Your task to perform on an android device: Search for razer huntsman on amazon, select the first entry, add it to the cart, then select checkout. Image 0: 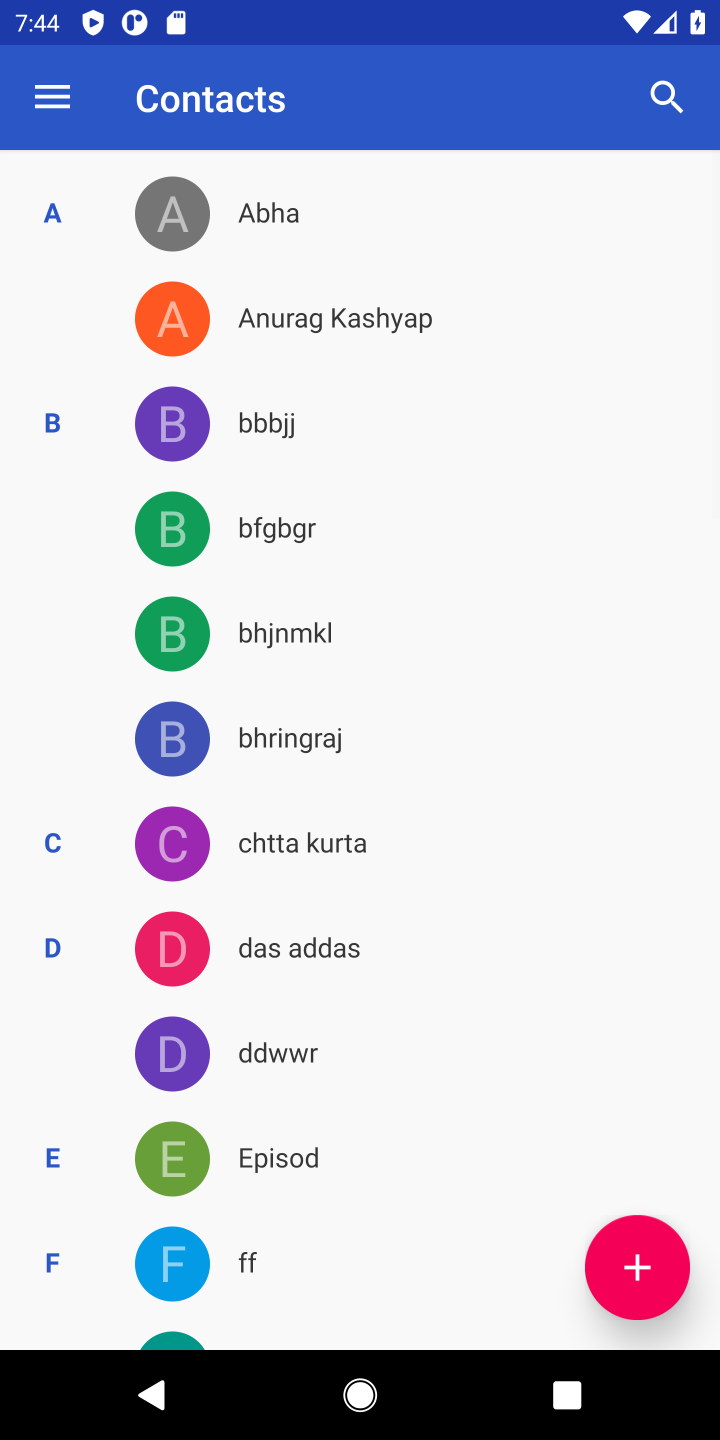
Step 0: press home button
Your task to perform on an android device: Search for razer huntsman on amazon, select the first entry, add it to the cart, then select checkout. Image 1: 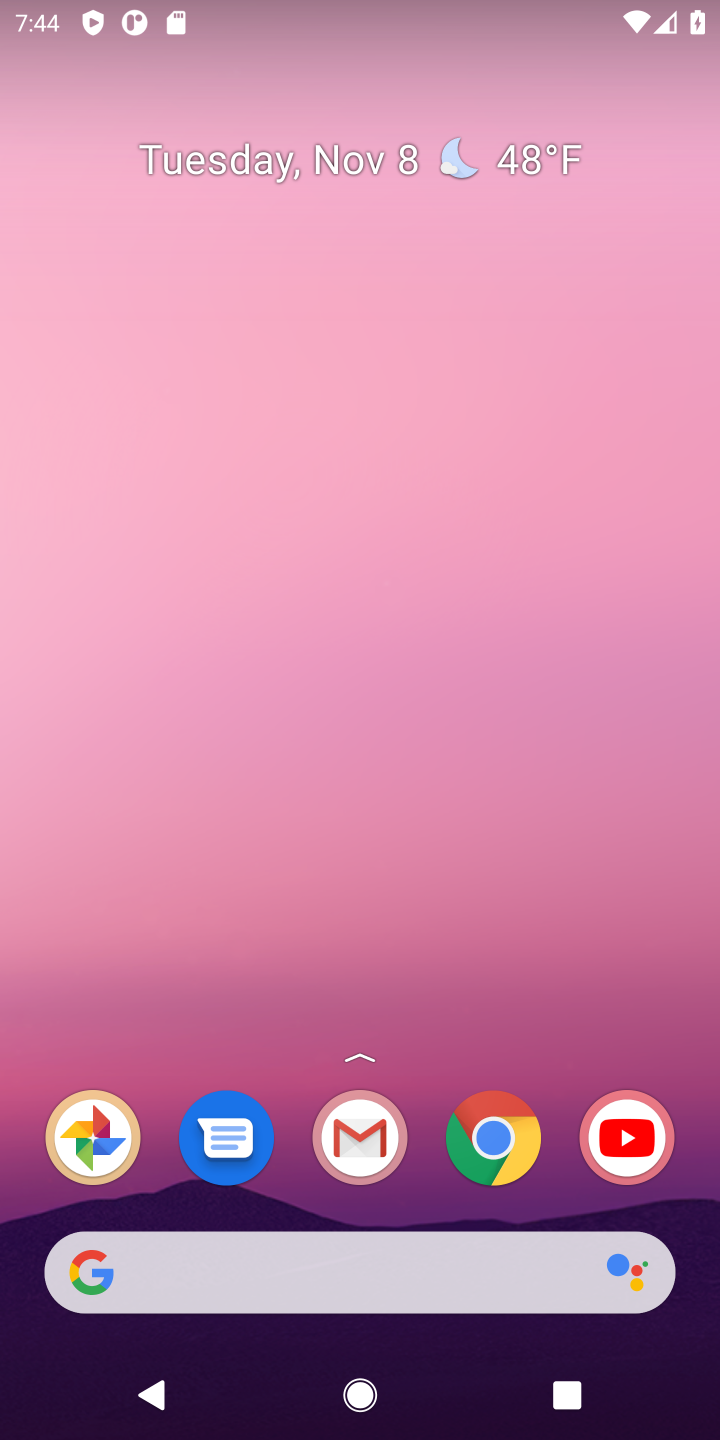
Step 1: click (488, 1132)
Your task to perform on an android device: Search for razer huntsman on amazon, select the first entry, add it to the cart, then select checkout. Image 2: 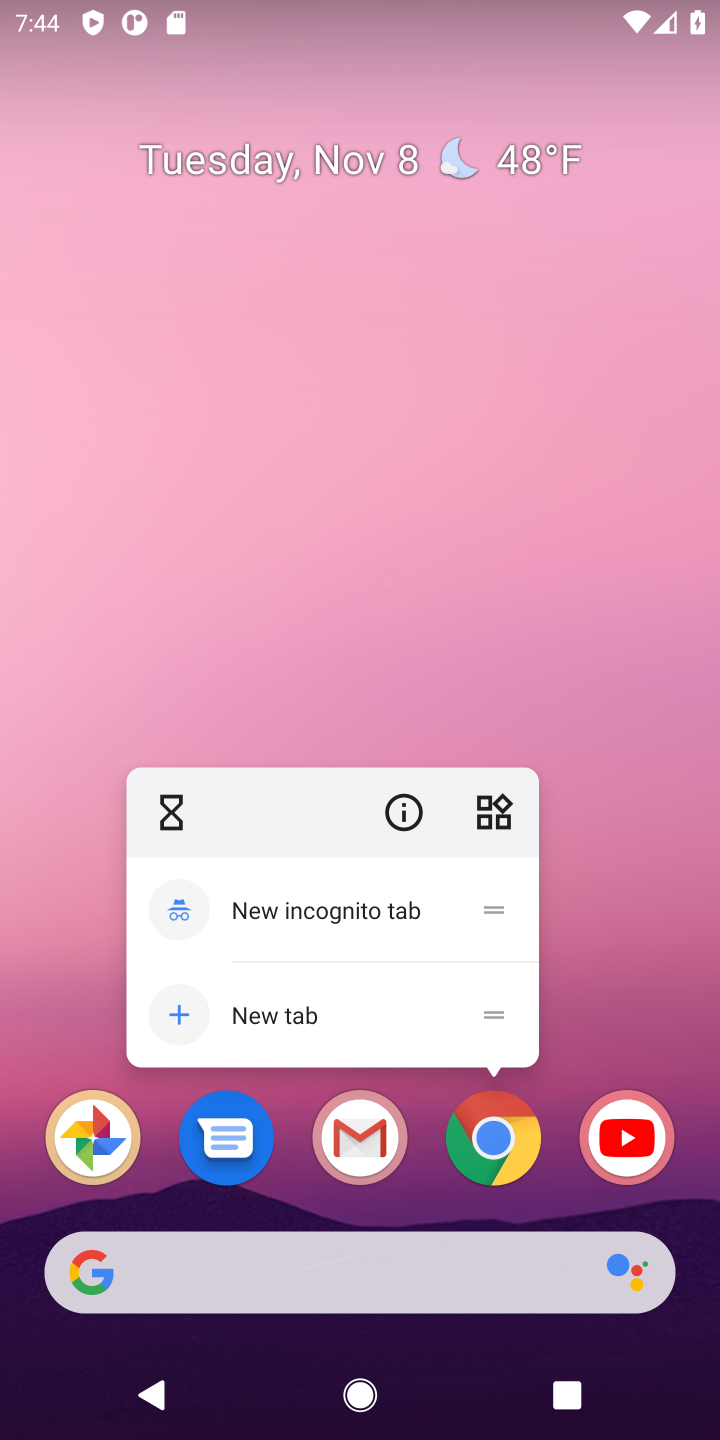
Step 2: click (507, 1122)
Your task to perform on an android device: Search for razer huntsman on amazon, select the first entry, add it to the cart, then select checkout. Image 3: 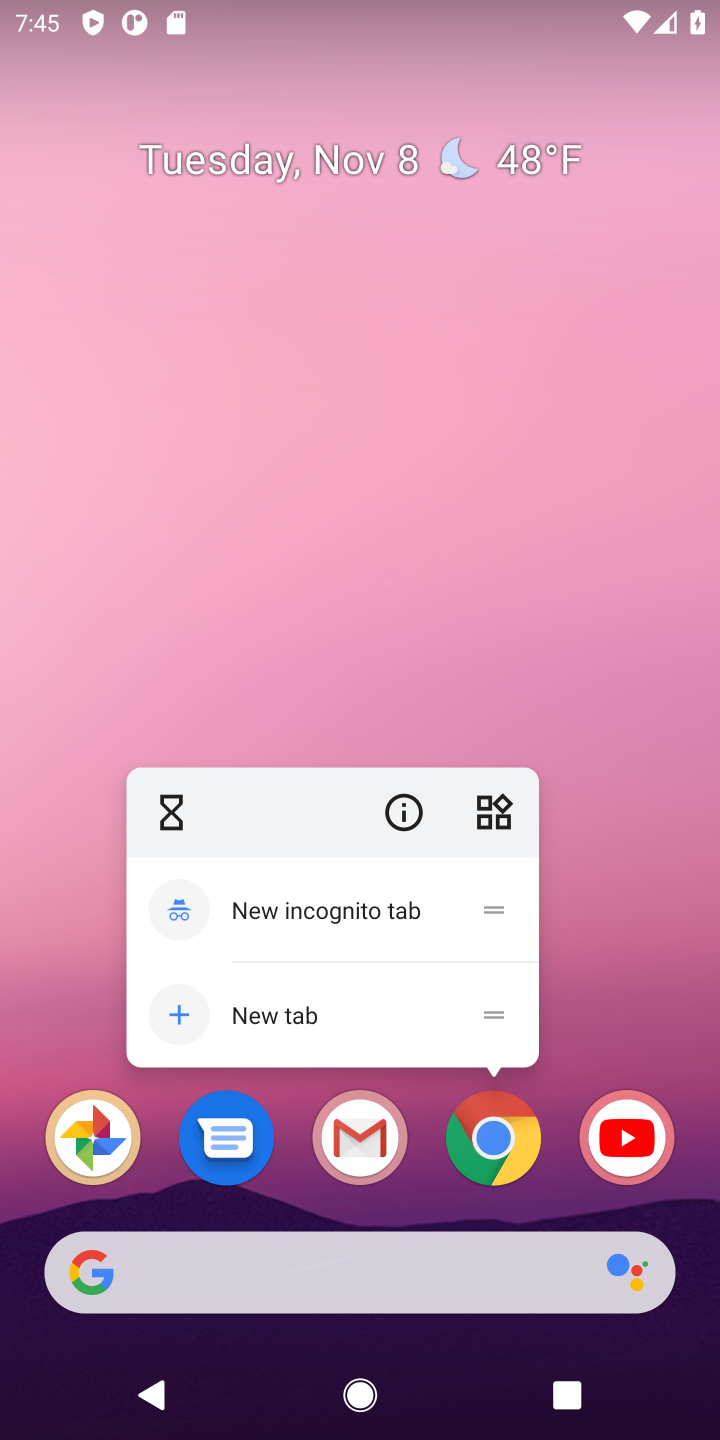
Step 3: click (507, 1128)
Your task to perform on an android device: Search for razer huntsman on amazon, select the first entry, add it to the cart, then select checkout. Image 4: 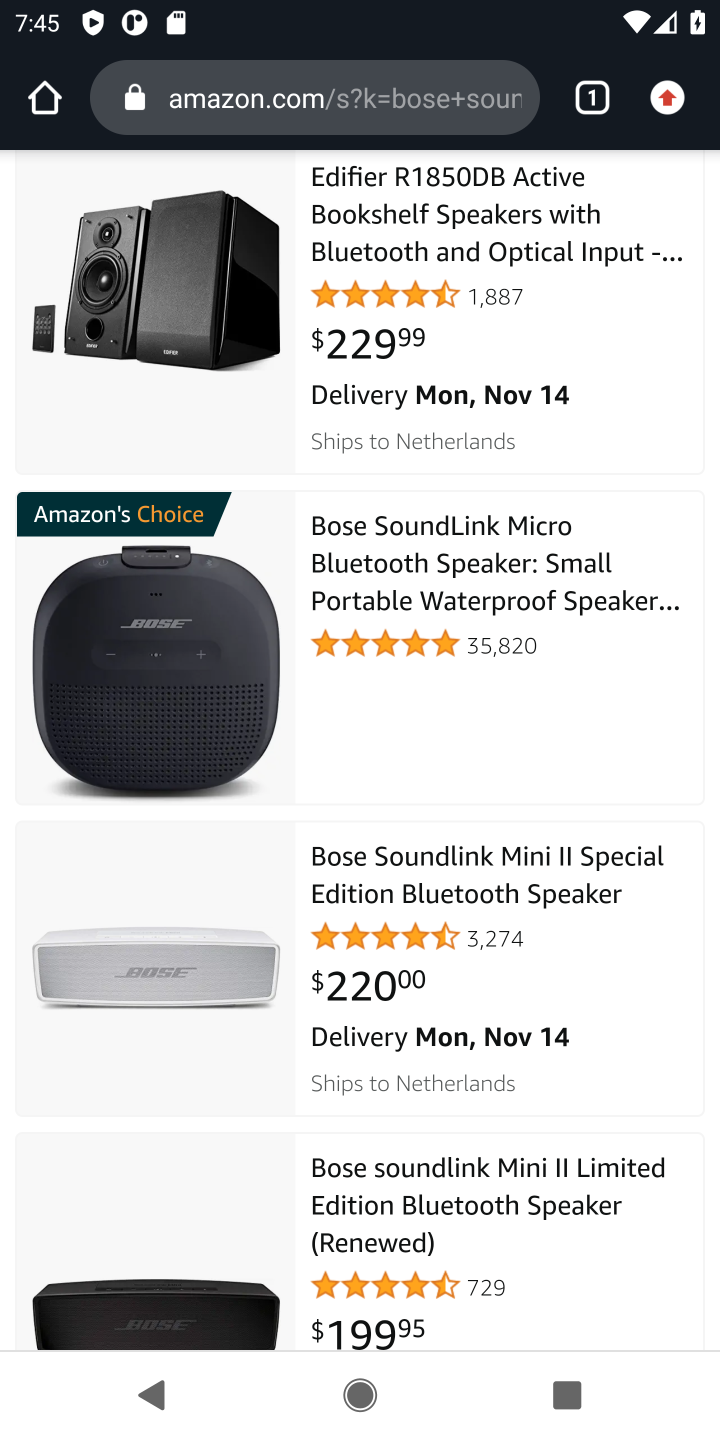
Step 4: drag from (474, 490) to (529, 1331)
Your task to perform on an android device: Search for razer huntsman on amazon, select the first entry, add it to the cart, then select checkout. Image 5: 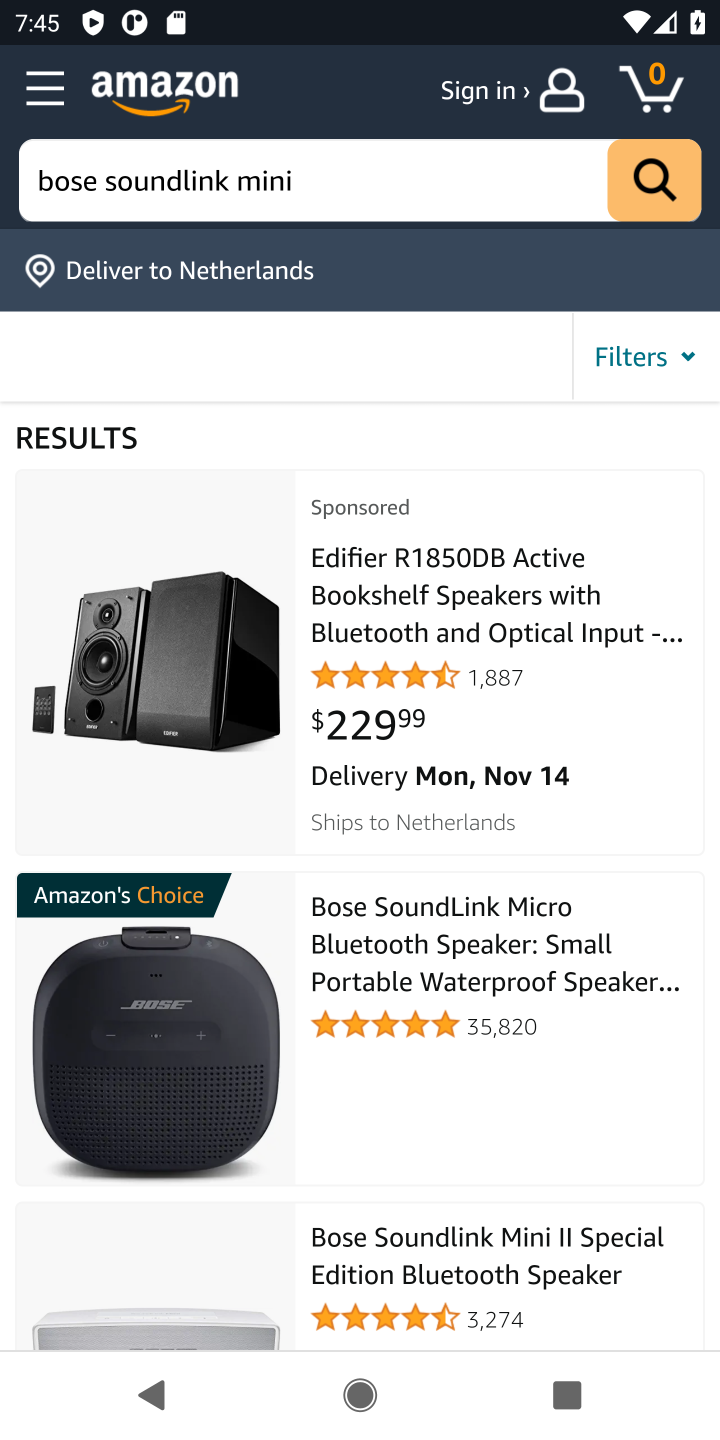
Step 5: click (340, 278)
Your task to perform on an android device: Search for razer huntsman on amazon, select the first entry, add it to the cart, then select checkout. Image 6: 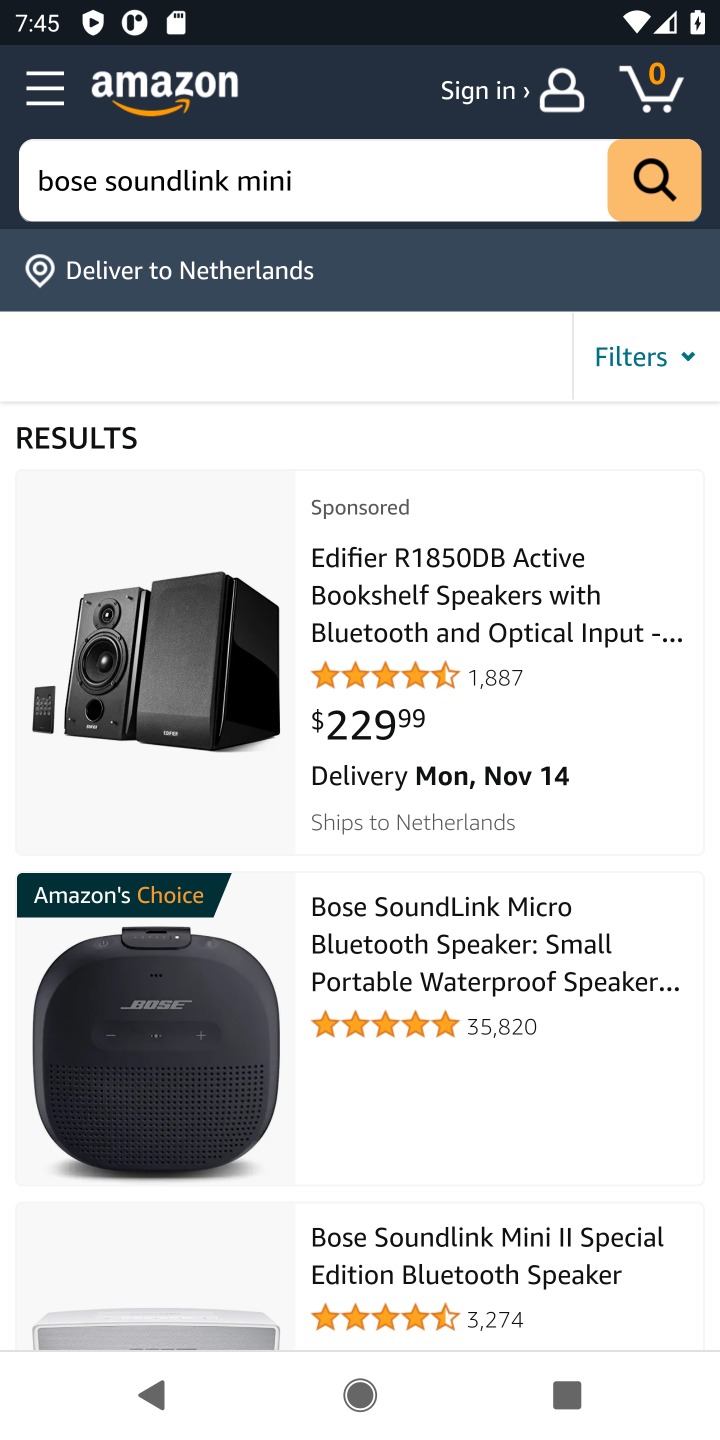
Step 6: click (380, 189)
Your task to perform on an android device: Search for razer huntsman on amazon, select the first entry, add it to the cart, then select checkout. Image 7: 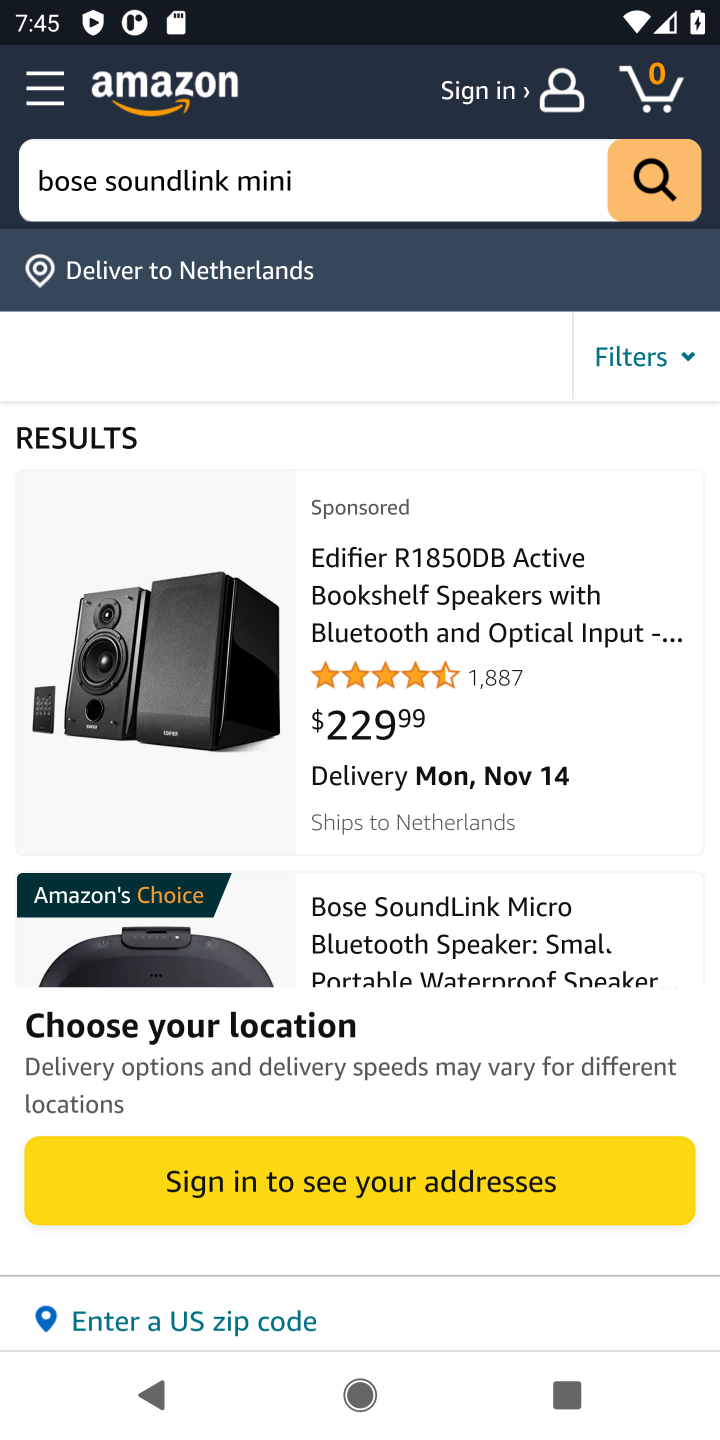
Step 7: click (365, 156)
Your task to perform on an android device: Search for razer huntsman on amazon, select the first entry, add it to the cart, then select checkout. Image 8: 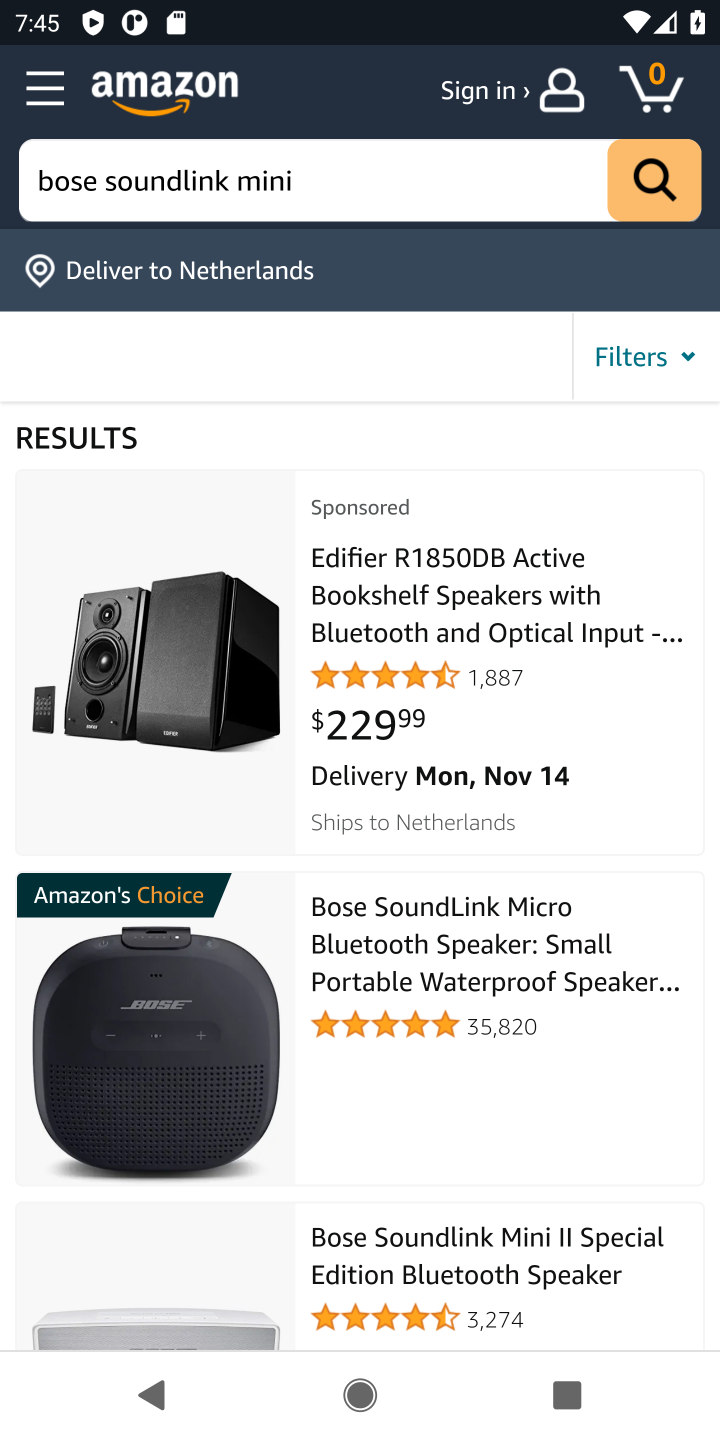
Step 8: click (331, 169)
Your task to perform on an android device: Search for razer huntsman on amazon, select the first entry, add it to the cart, then select checkout. Image 9: 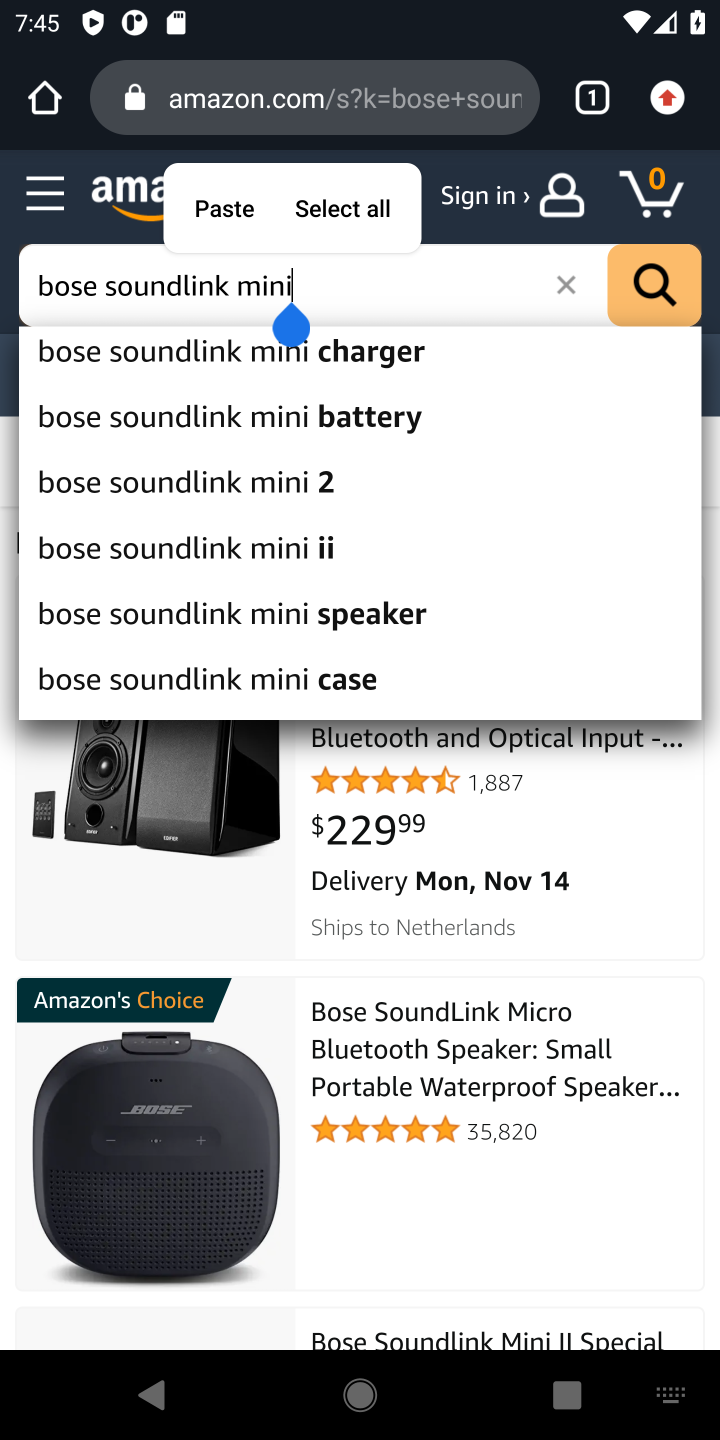
Step 9: click (567, 279)
Your task to perform on an android device: Search for razer huntsman on amazon, select the first entry, add it to the cart, then select checkout. Image 10: 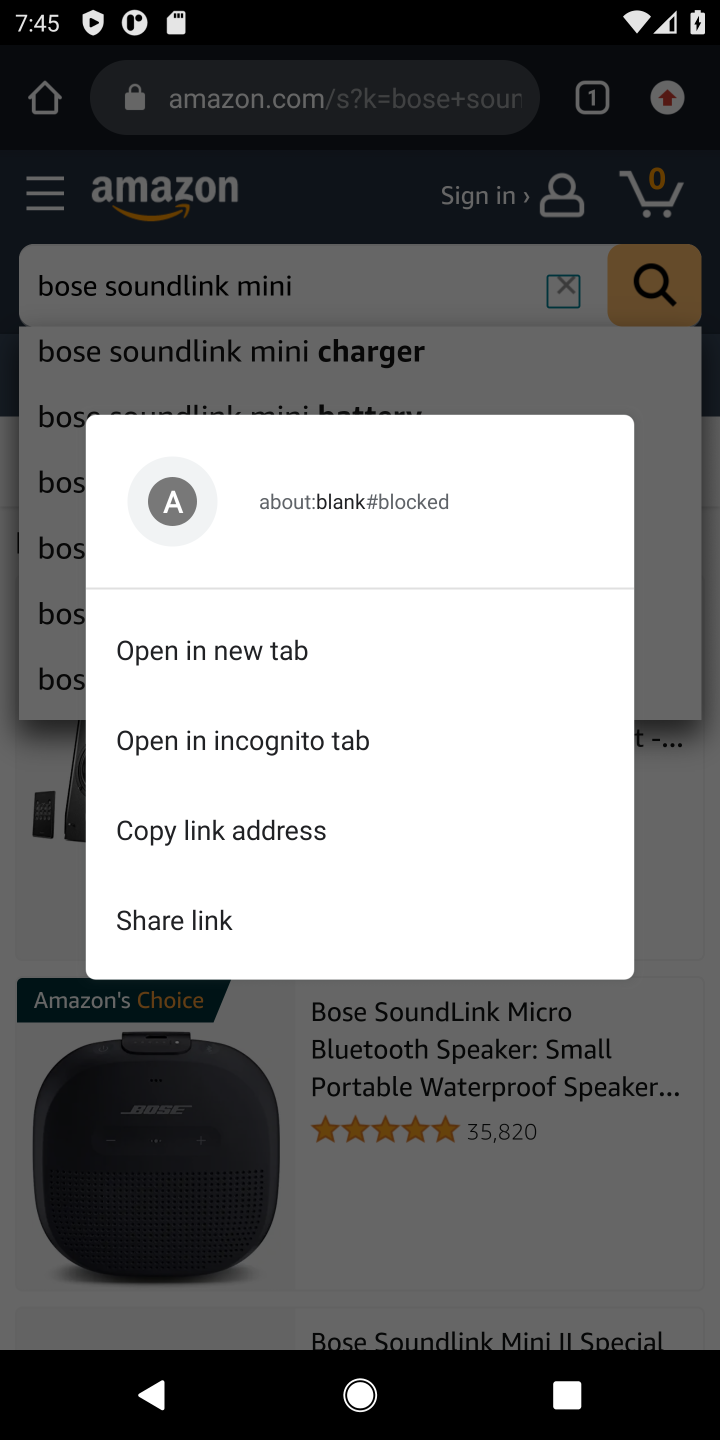
Step 10: click (566, 288)
Your task to perform on an android device: Search for razer huntsman on amazon, select the first entry, add it to the cart, then select checkout. Image 11: 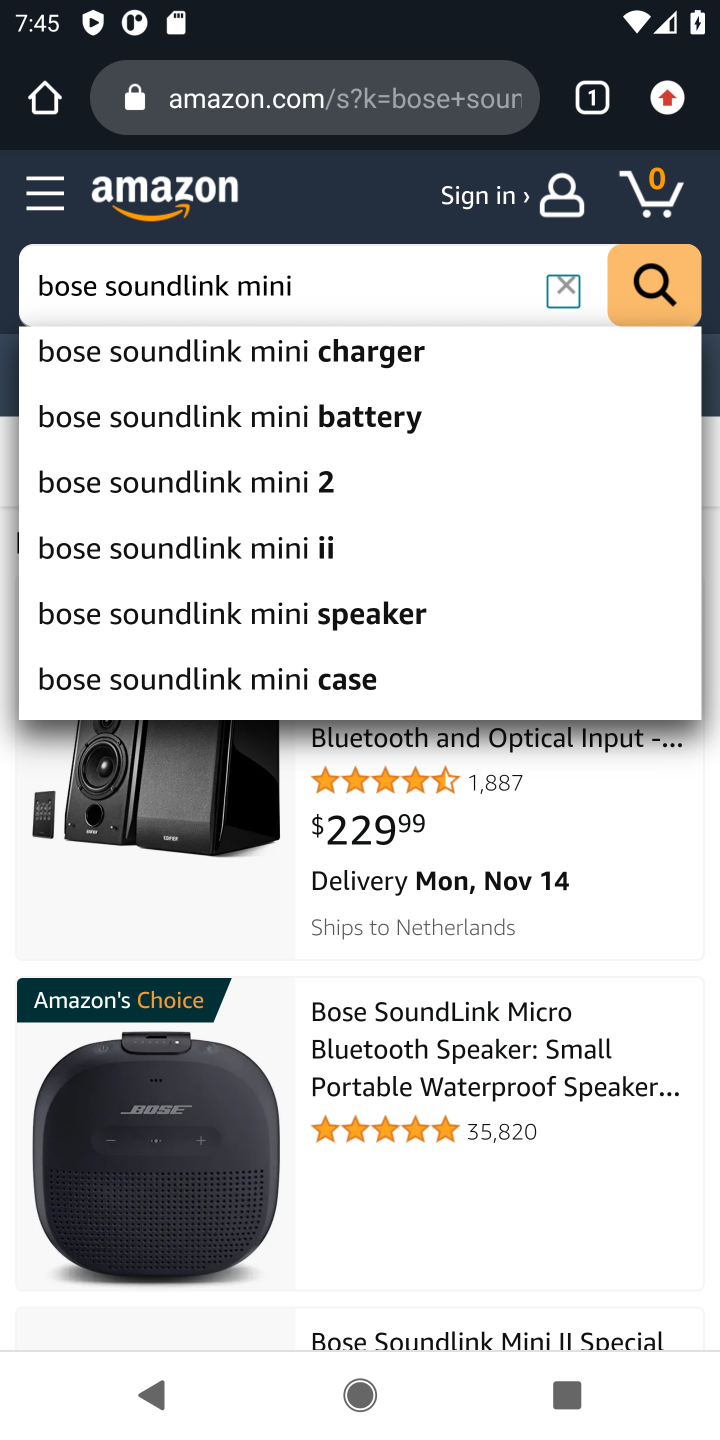
Step 11: click (561, 288)
Your task to perform on an android device: Search for razer huntsman on amazon, select the first entry, add it to the cart, then select checkout. Image 12: 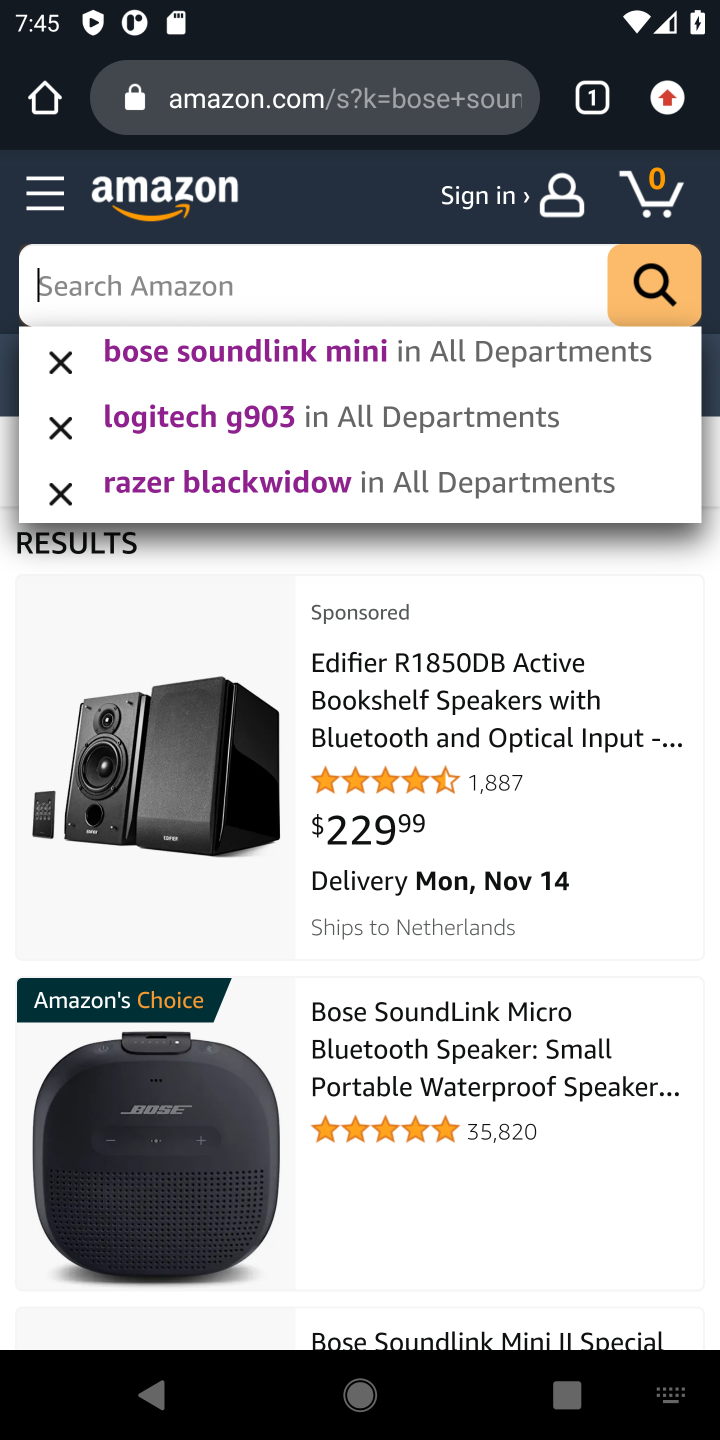
Step 12: type "razer huntsman"
Your task to perform on an android device: Search for razer huntsman on amazon, select the first entry, add it to the cart, then select checkout. Image 13: 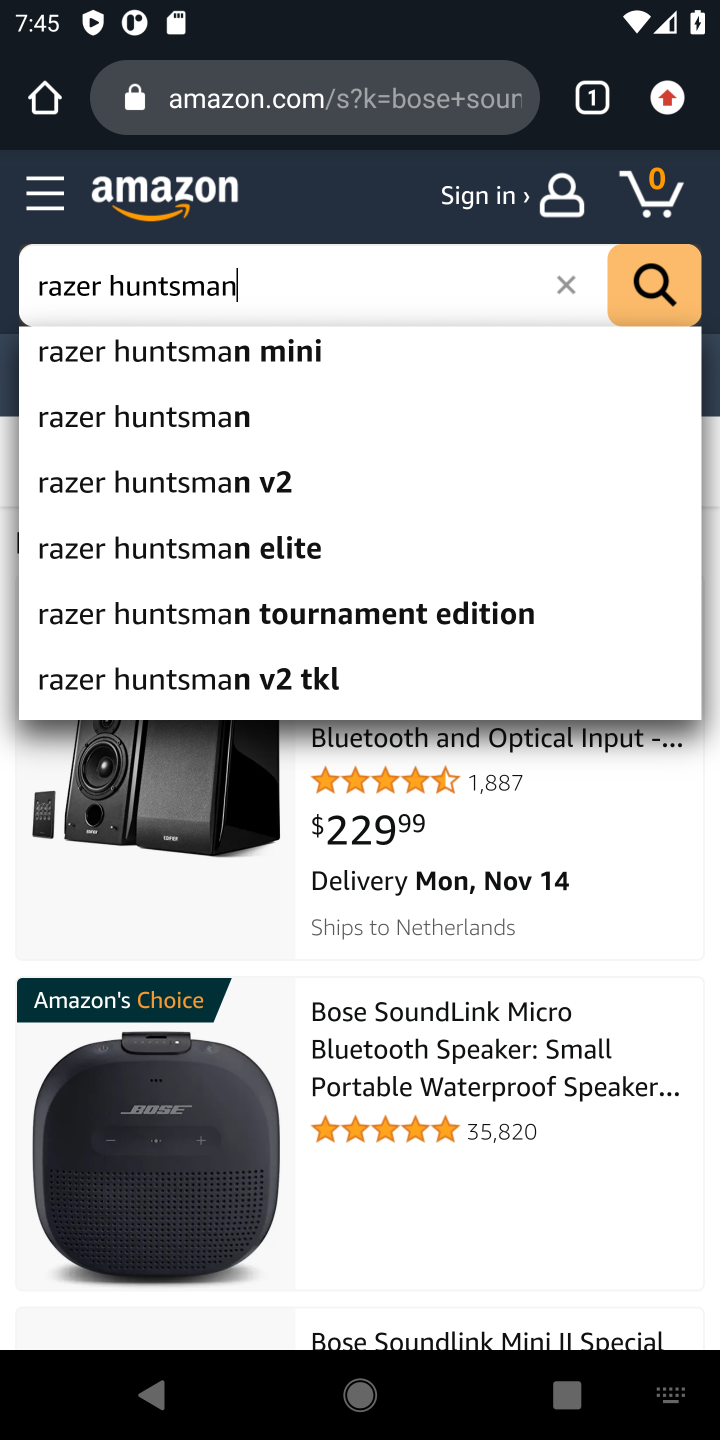
Step 13: press enter
Your task to perform on an android device: Search for razer huntsman on amazon, select the first entry, add it to the cart, then select checkout. Image 14: 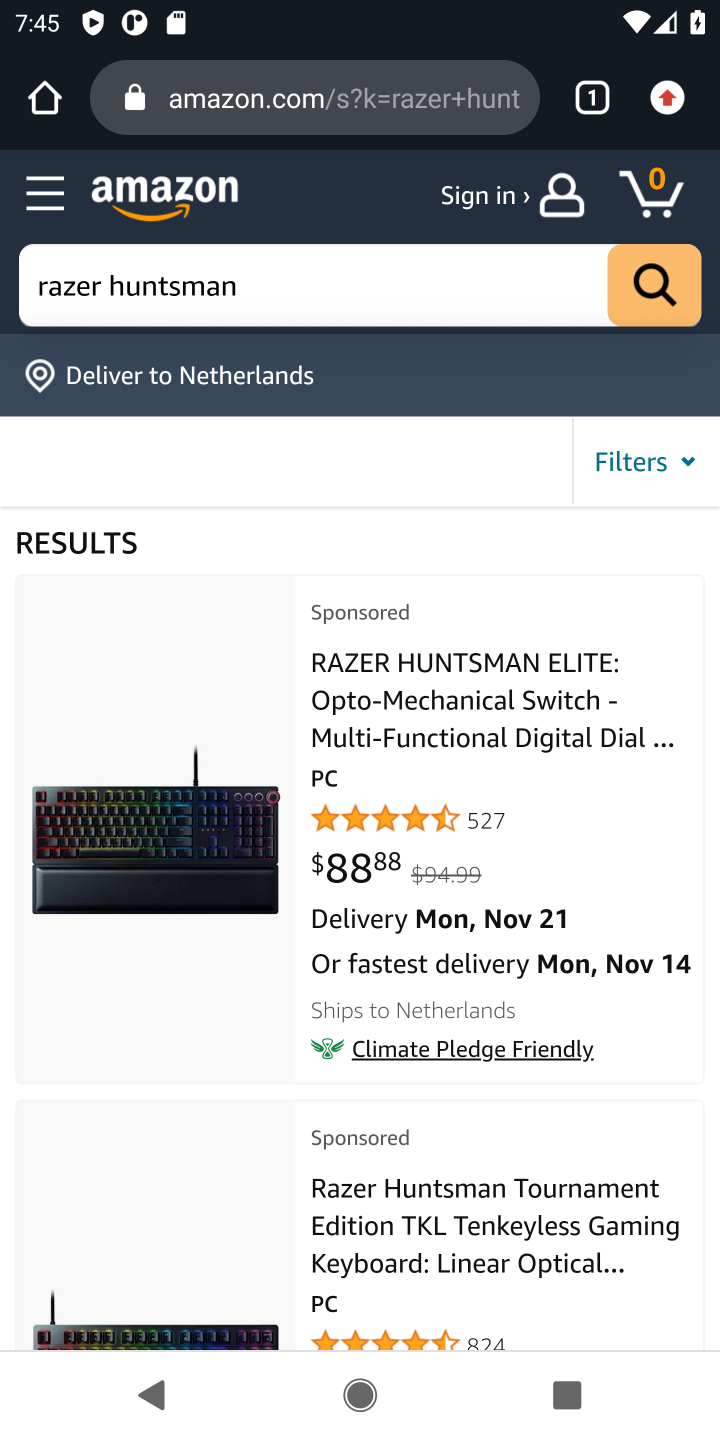
Step 14: click (477, 715)
Your task to perform on an android device: Search for razer huntsman on amazon, select the first entry, add it to the cart, then select checkout. Image 15: 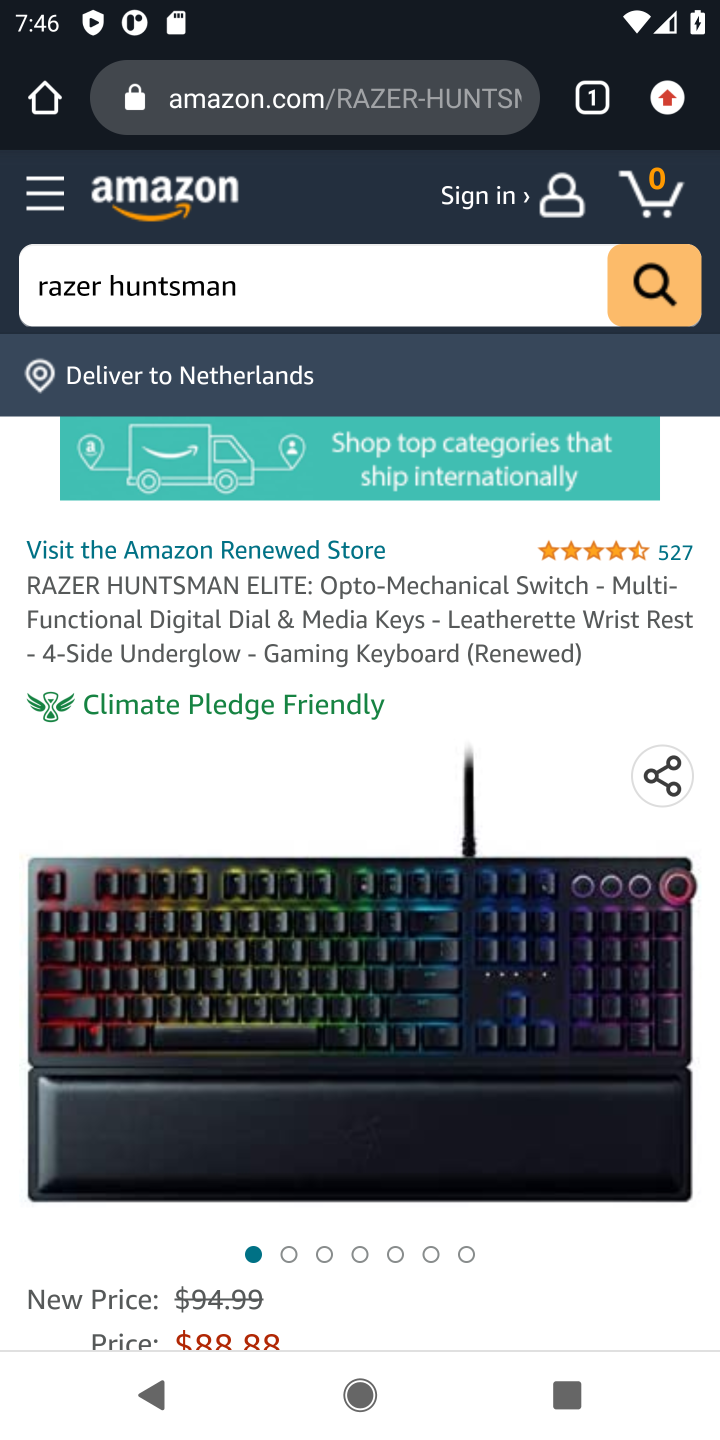
Step 15: drag from (350, 1301) to (650, 415)
Your task to perform on an android device: Search for razer huntsman on amazon, select the first entry, add it to the cart, then select checkout. Image 16: 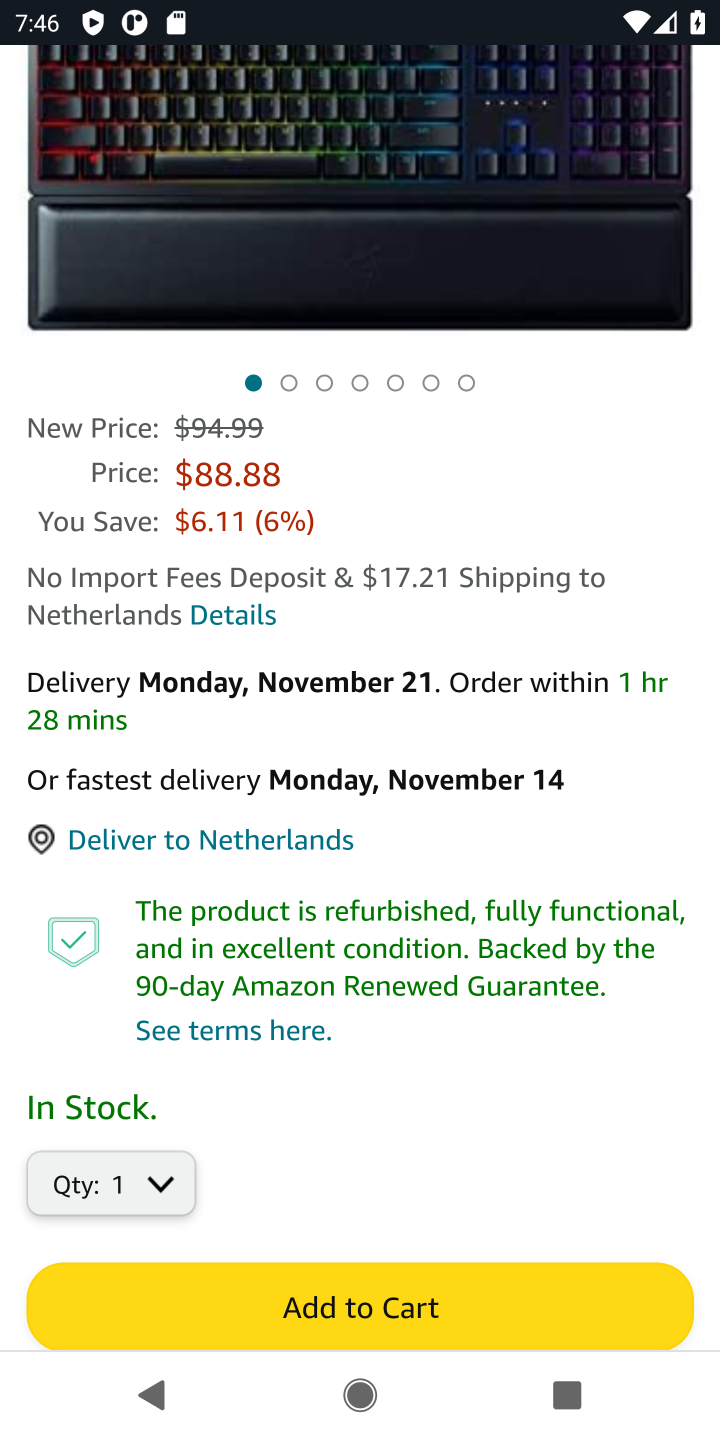
Step 16: drag from (305, 1154) to (451, 478)
Your task to perform on an android device: Search for razer huntsman on amazon, select the first entry, add it to the cart, then select checkout. Image 17: 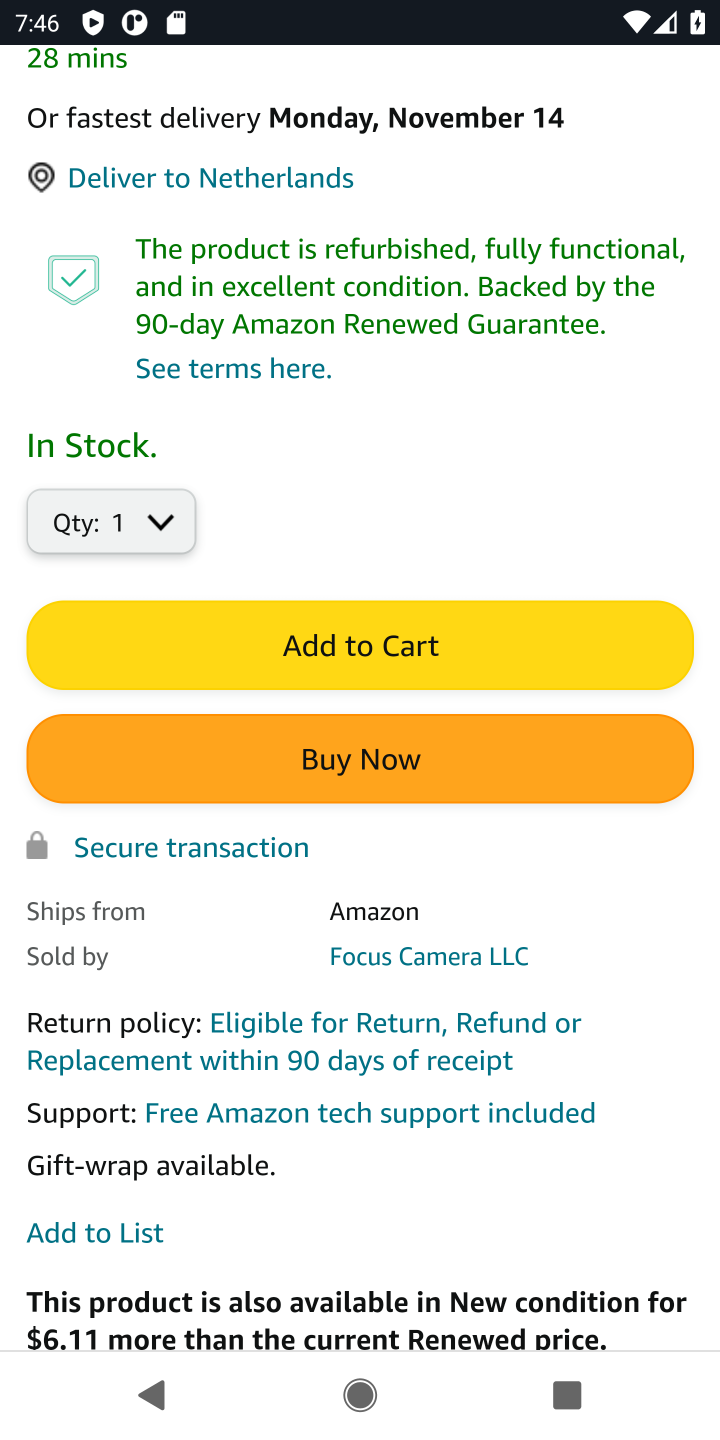
Step 17: click (360, 648)
Your task to perform on an android device: Search for razer huntsman on amazon, select the first entry, add it to the cart, then select checkout. Image 18: 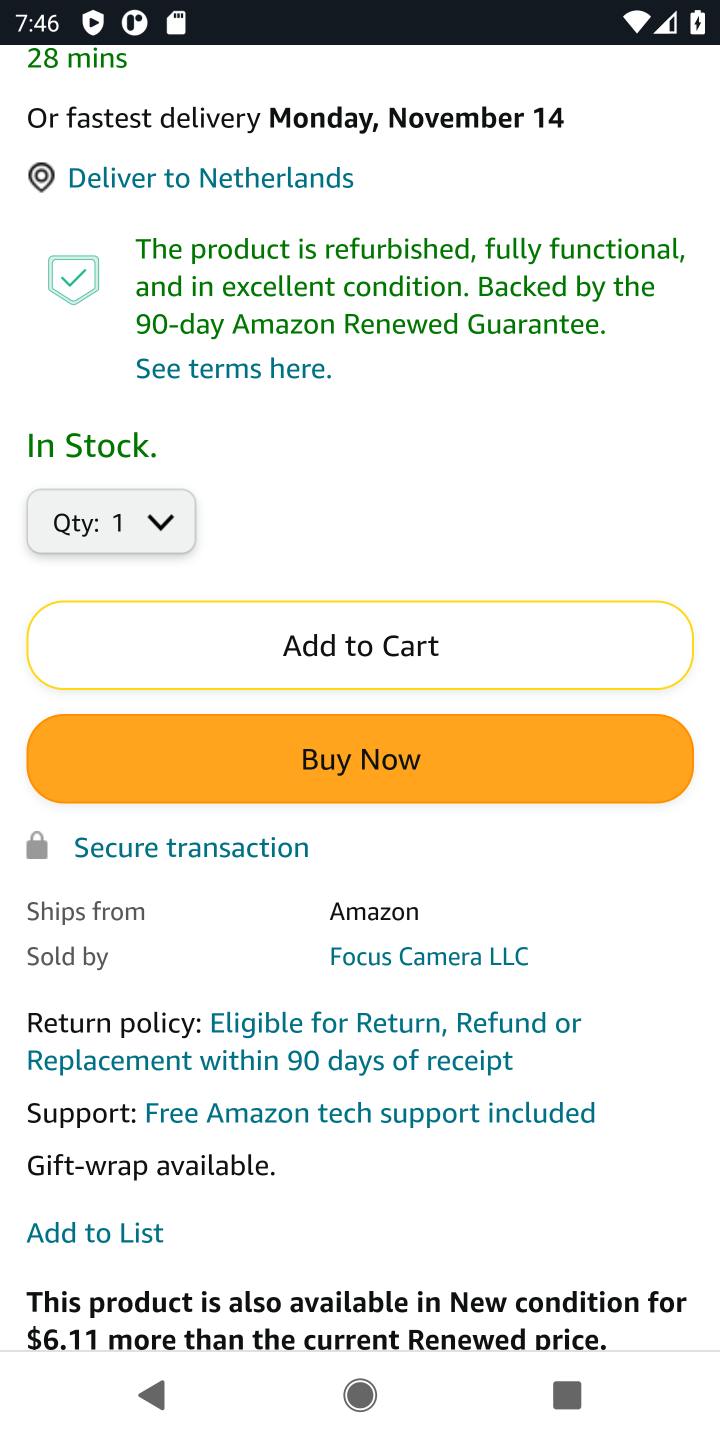
Step 18: click (370, 648)
Your task to perform on an android device: Search for razer huntsman on amazon, select the first entry, add it to the cart, then select checkout. Image 19: 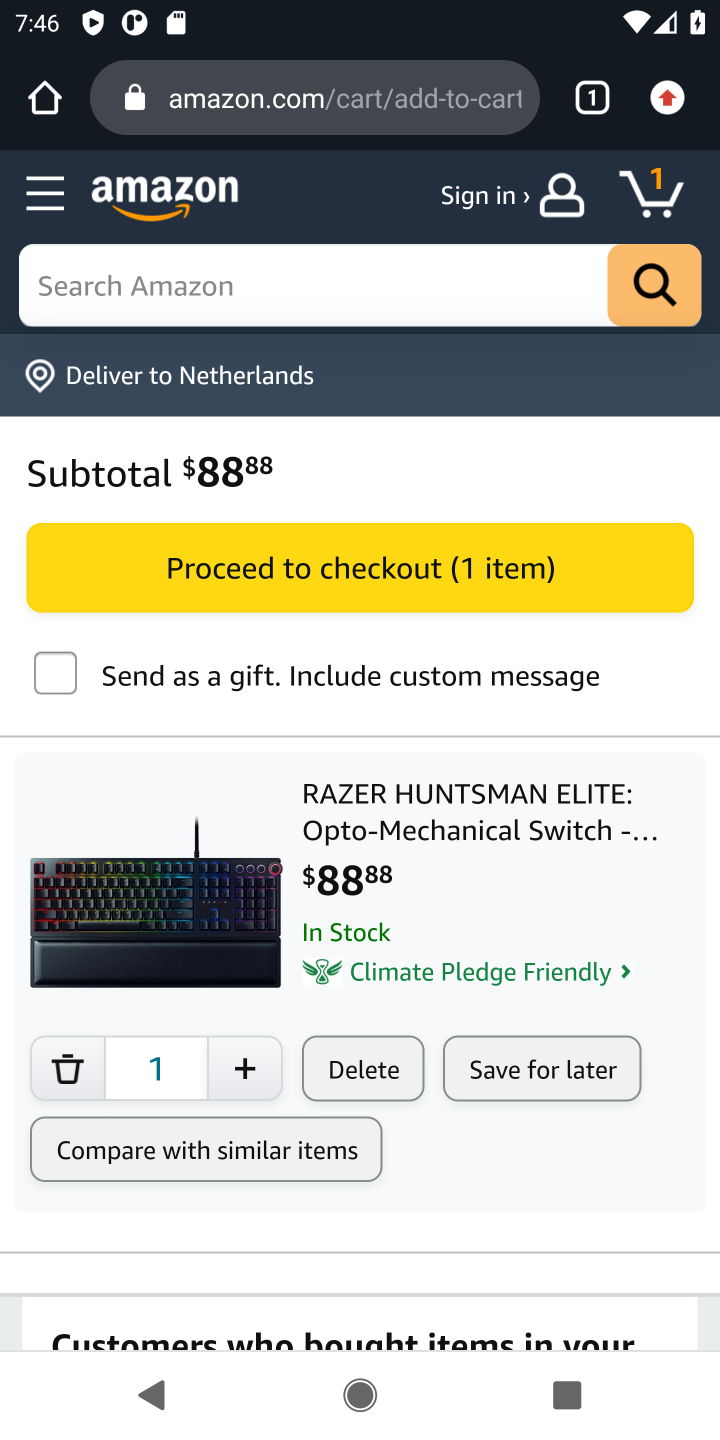
Step 19: click (417, 564)
Your task to perform on an android device: Search for razer huntsman on amazon, select the first entry, add it to the cart, then select checkout. Image 20: 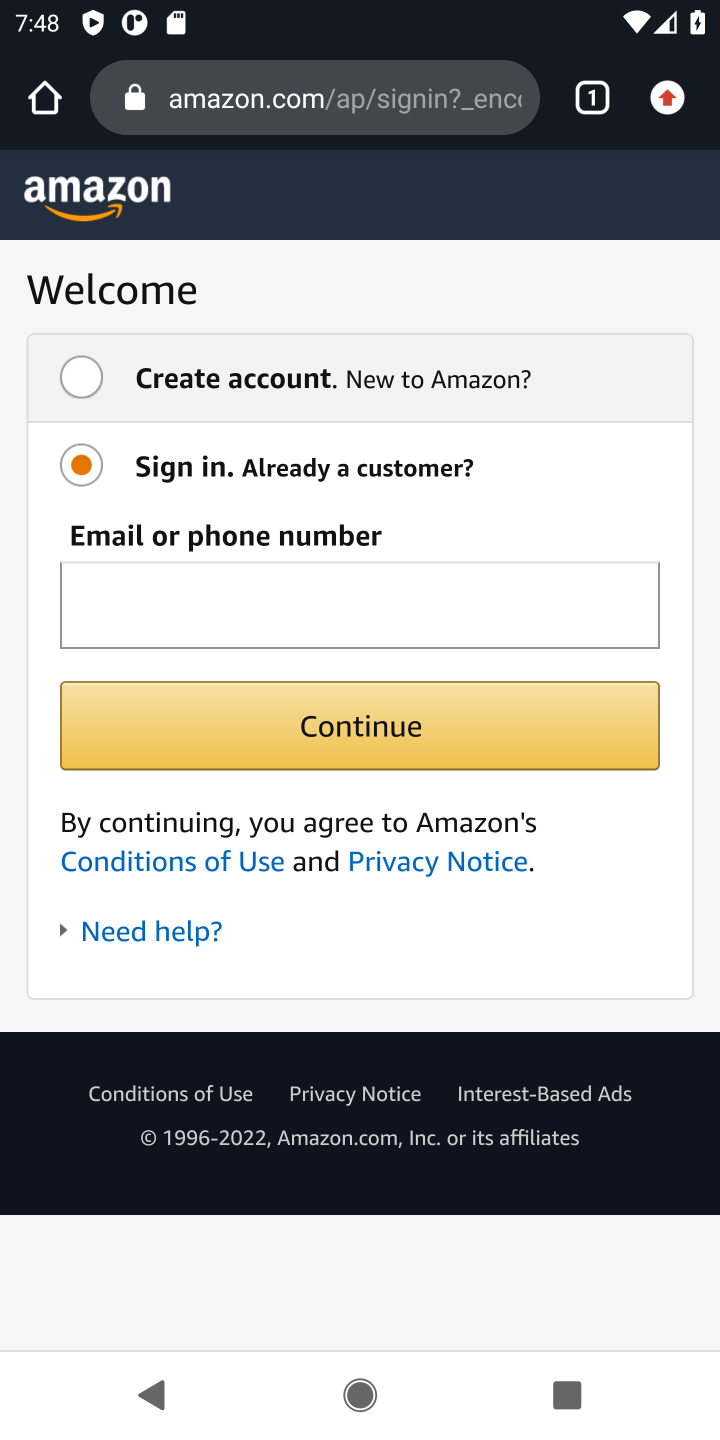
Step 20: task complete